Your task to perform on an android device: turn on improve location accuracy Image 0: 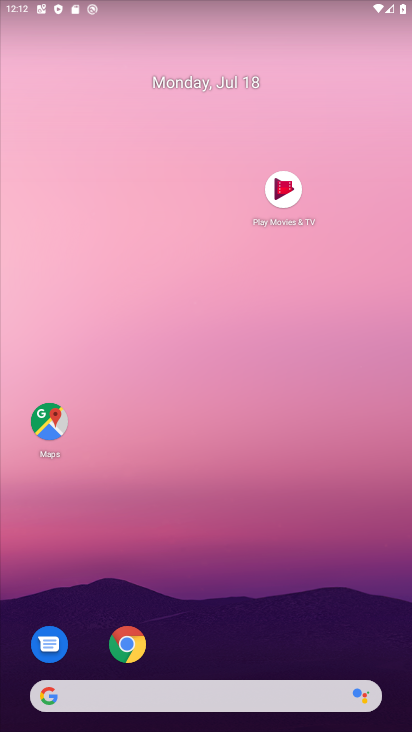
Step 0: click (292, 44)
Your task to perform on an android device: turn on improve location accuracy Image 1: 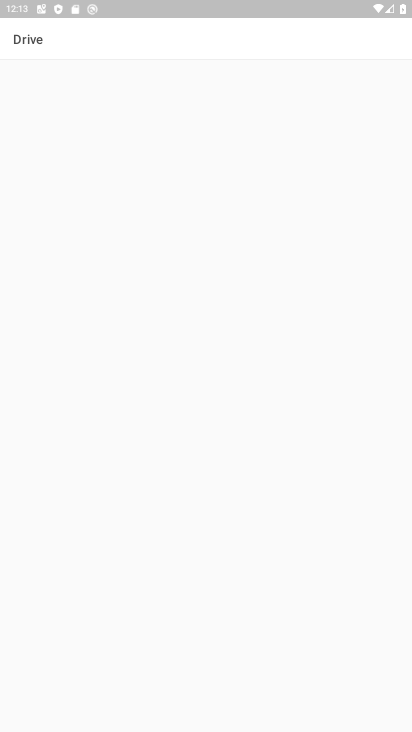
Step 1: press home button
Your task to perform on an android device: turn on improve location accuracy Image 2: 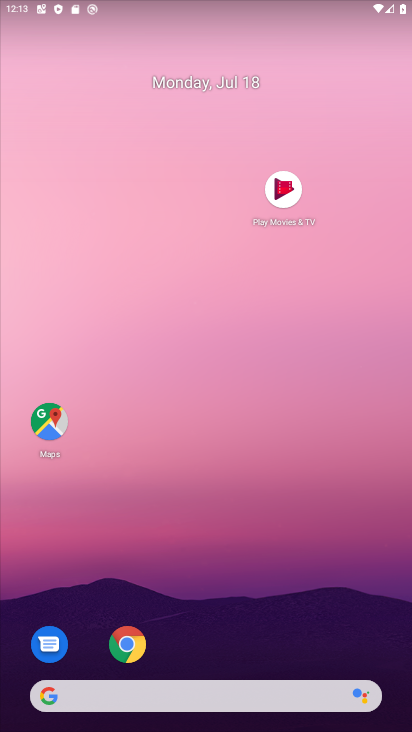
Step 2: drag from (279, 635) to (89, 86)
Your task to perform on an android device: turn on improve location accuracy Image 3: 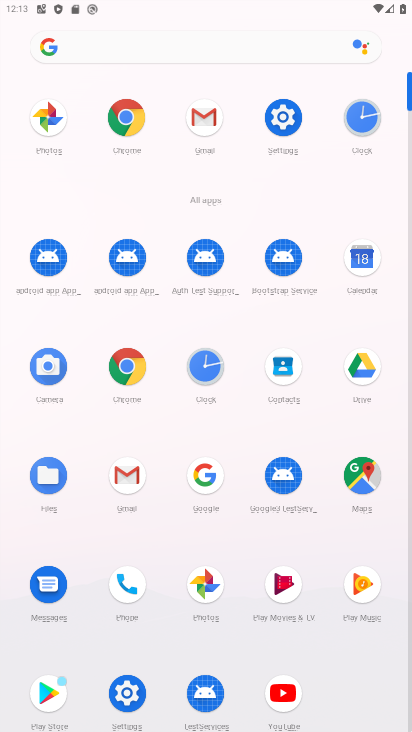
Step 3: click (292, 131)
Your task to perform on an android device: turn on improve location accuracy Image 4: 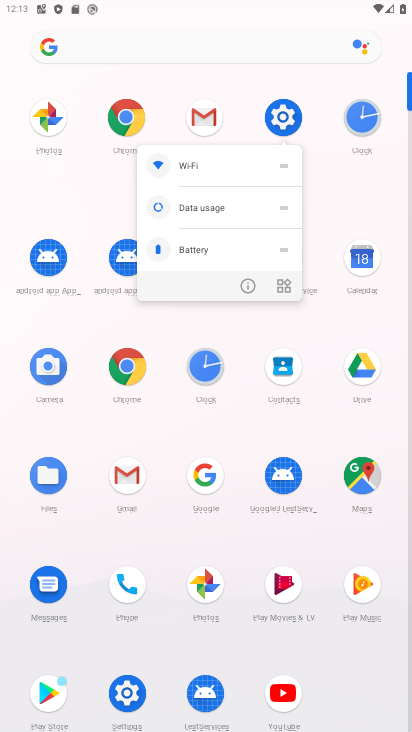
Step 4: click (271, 109)
Your task to perform on an android device: turn on improve location accuracy Image 5: 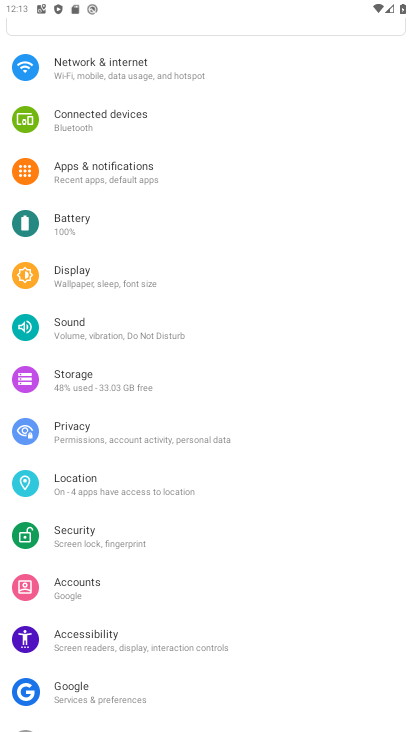
Step 5: click (95, 481)
Your task to perform on an android device: turn on improve location accuracy Image 6: 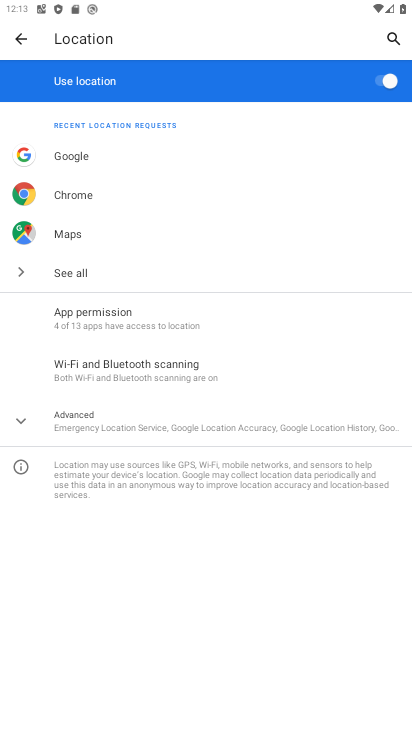
Step 6: click (148, 419)
Your task to perform on an android device: turn on improve location accuracy Image 7: 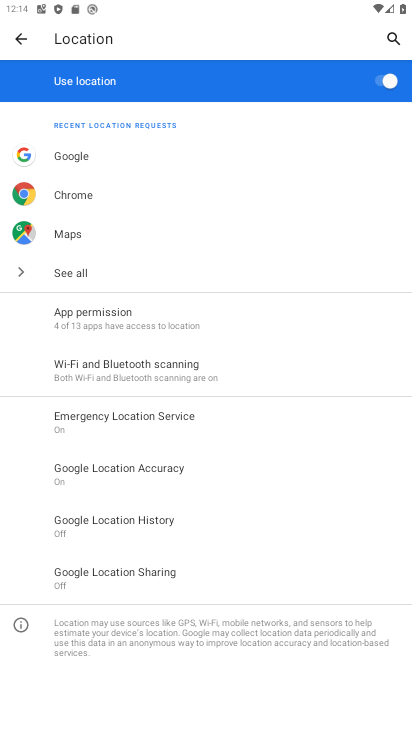
Step 7: click (139, 462)
Your task to perform on an android device: turn on improve location accuracy Image 8: 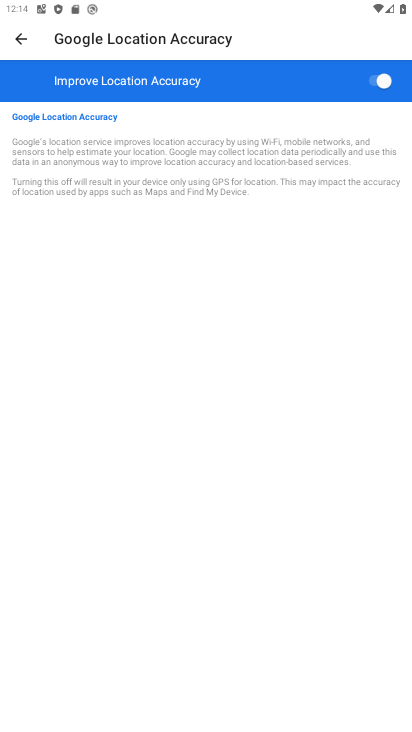
Step 8: task complete